Your task to perform on an android device: find snoozed emails in the gmail app Image 0: 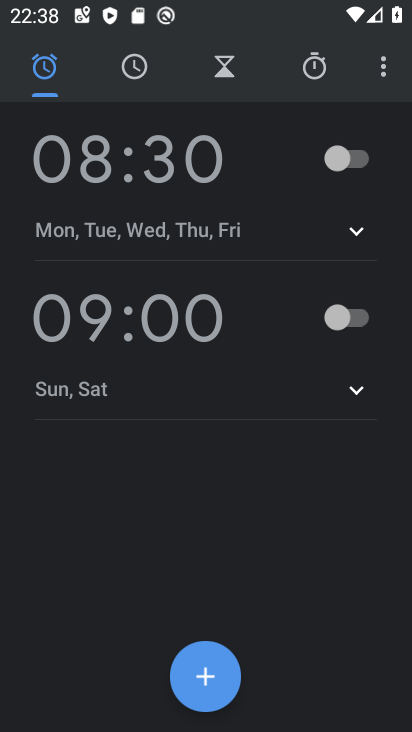
Step 0: press home button
Your task to perform on an android device: find snoozed emails in the gmail app Image 1: 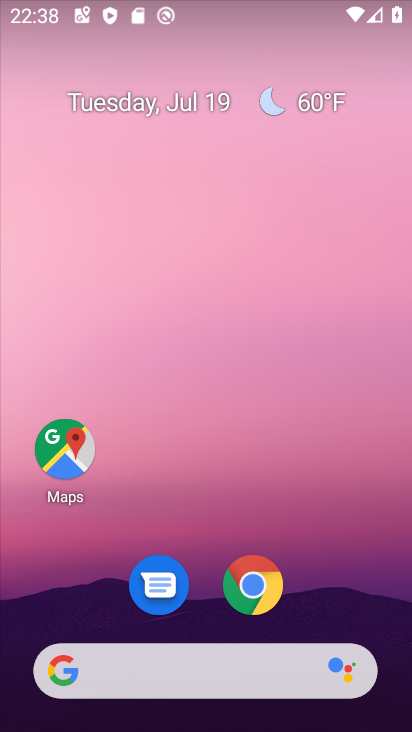
Step 1: drag from (304, 483) to (361, 45)
Your task to perform on an android device: find snoozed emails in the gmail app Image 2: 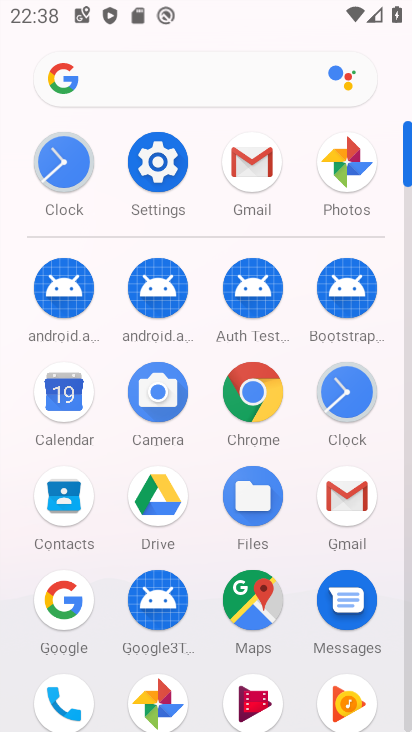
Step 2: click (239, 157)
Your task to perform on an android device: find snoozed emails in the gmail app Image 3: 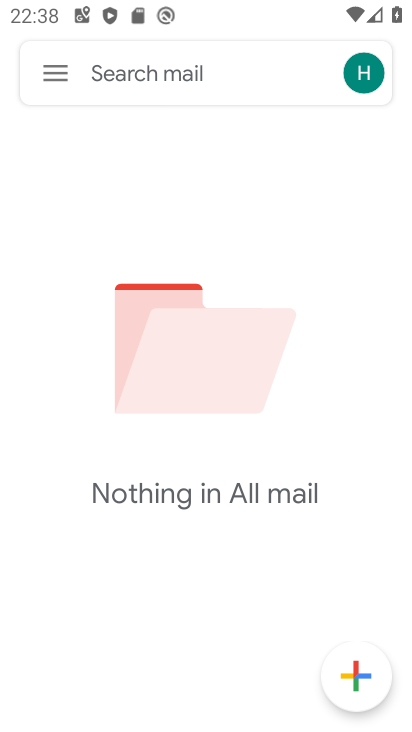
Step 3: click (54, 75)
Your task to perform on an android device: find snoozed emails in the gmail app Image 4: 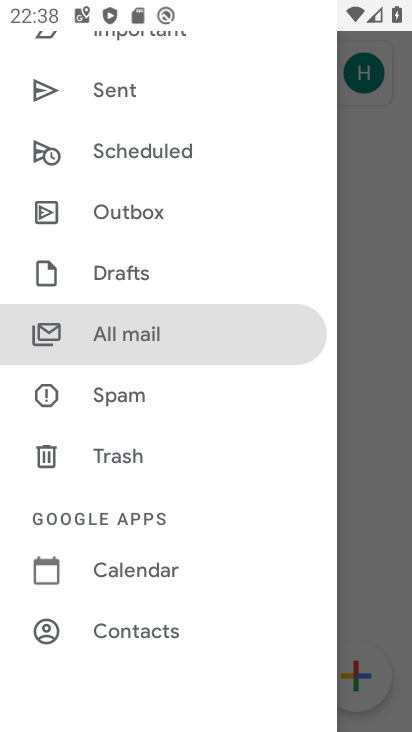
Step 4: drag from (213, 214) to (192, 544)
Your task to perform on an android device: find snoozed emails in the gmail app Image 5: 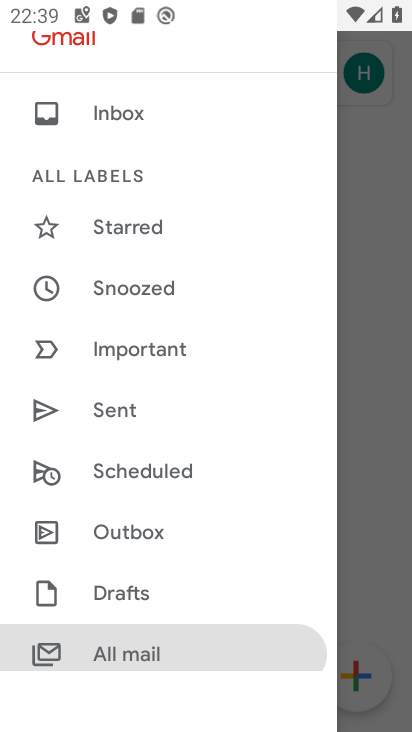
Step 5: click (160, 279)
Your task to perform on an android device: find snoozed emails in the gmail app Image 6: 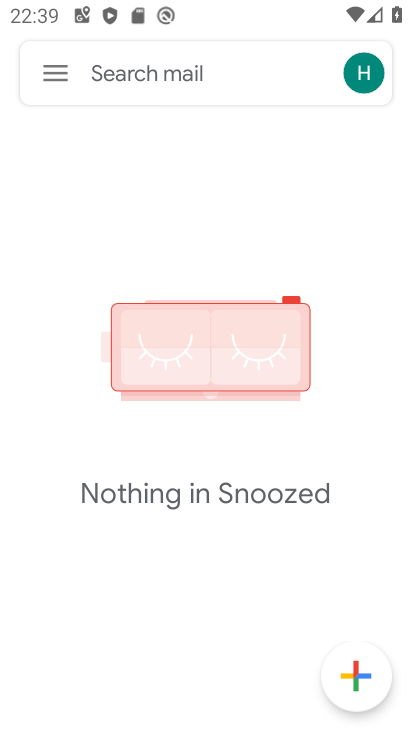
Step 6: task complete